Your task to perform on an android device: Is it going to rain today? Image 0: 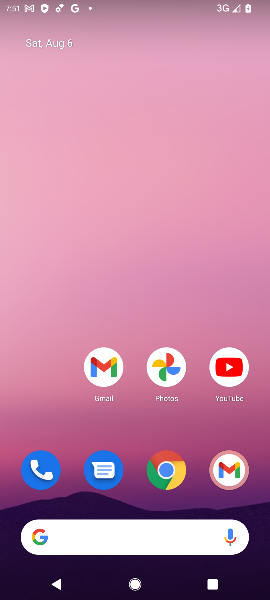
Step 0: drag from (162, 492) to (159, 126)
Your task to perform on an android device: Is it going to rain today? Image 1: 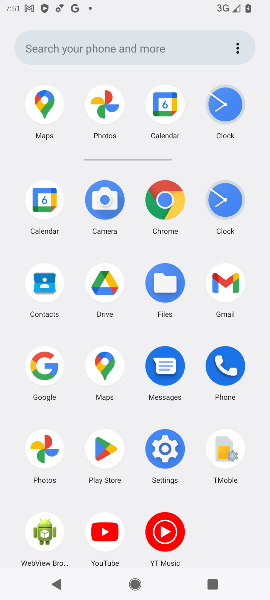
Step 1: click (49, 382)
Your task to perform on an android device: Is it going to rain today? Image 2: 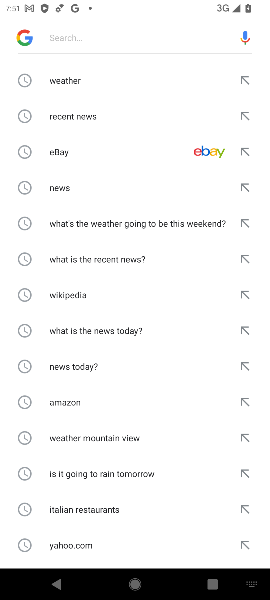
Step 2: click (89, 86)
Your task to perform on an android device: Is it going to rain today? Image 3: 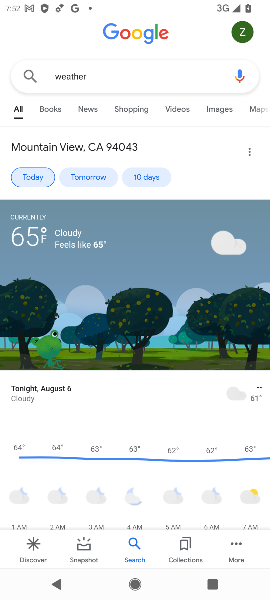
Step 3: task complete